Your task to perform on an android device: check android version Image 0: 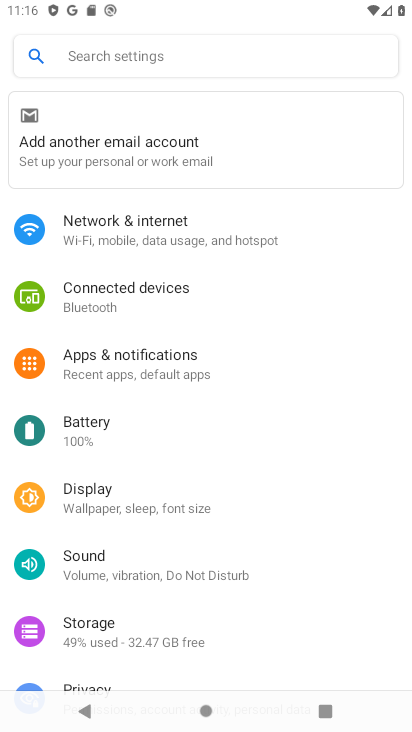
Step 0: click (125, 55)
Your task to perform on an android device: check android version Image 1: 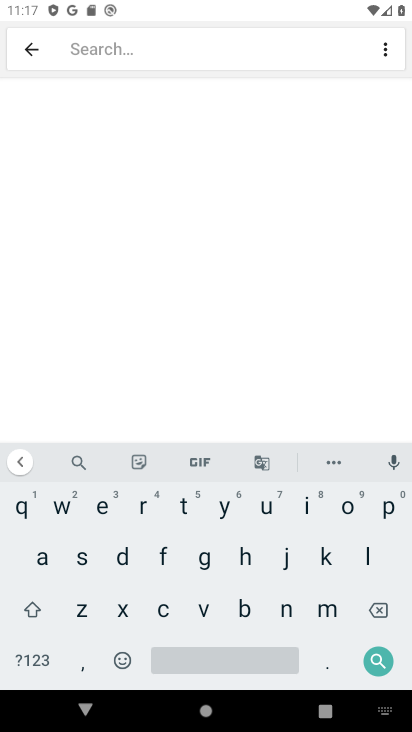
Step 1: click (41, 566)
Your task to perform on an android device: check android version Image 2: 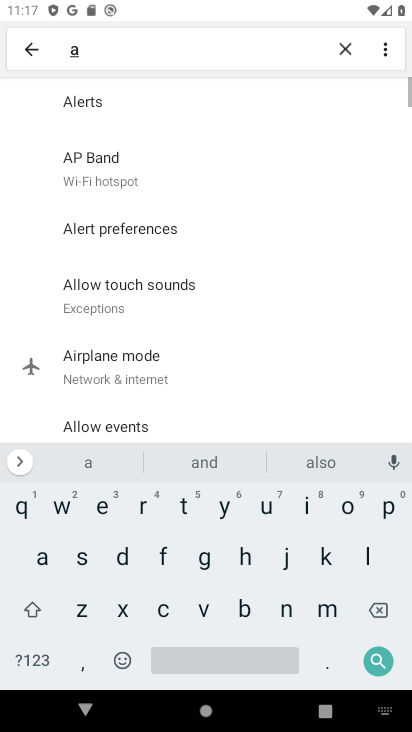
Step 2: click (287, 610)
Your task to perform on an android device: check android version Image 3: 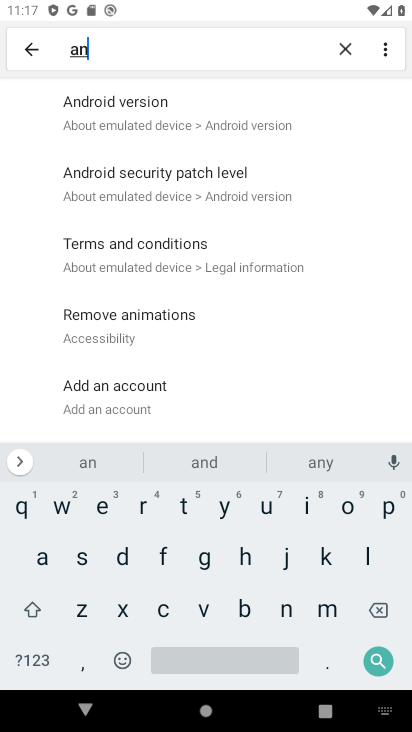
Step 3: click (178, 98)
Your task to perform on an android device: check android version Image 4: 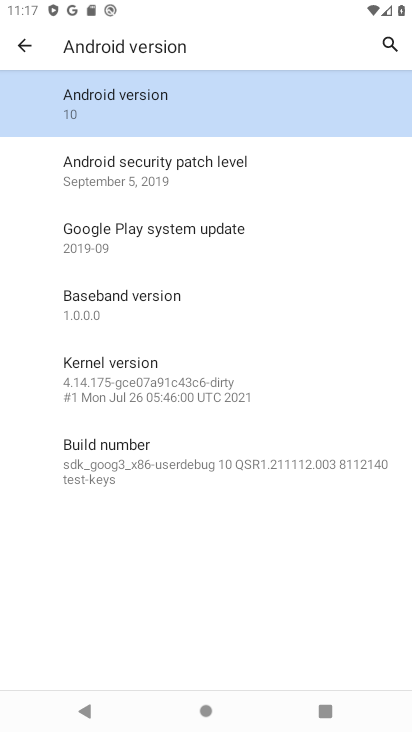
Step 4: task complete